Your task to perform on an android device: toggle sleep mode Image 0: 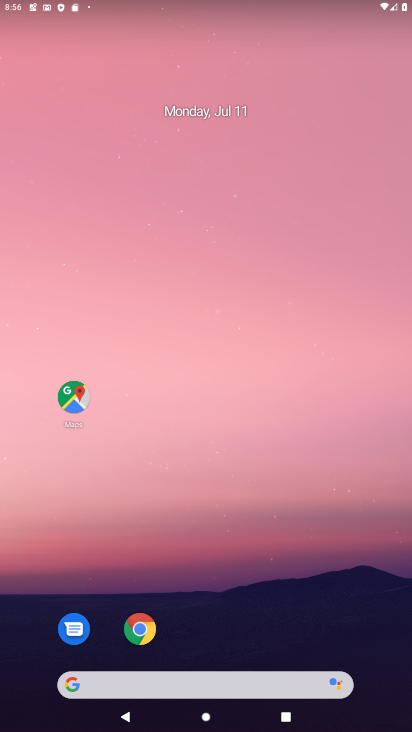
Step 0: drag from (351, 3) to (324, 596)
Your task to perform on an android device: toggle sleep mode Image 1: 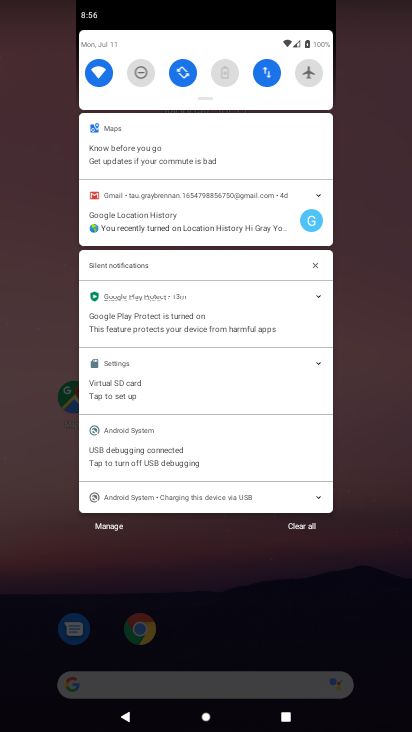
Step 1: drag from (278, 98) to (310, 556)
Your task to perform on an android device: toggle sleep mode Image 2: 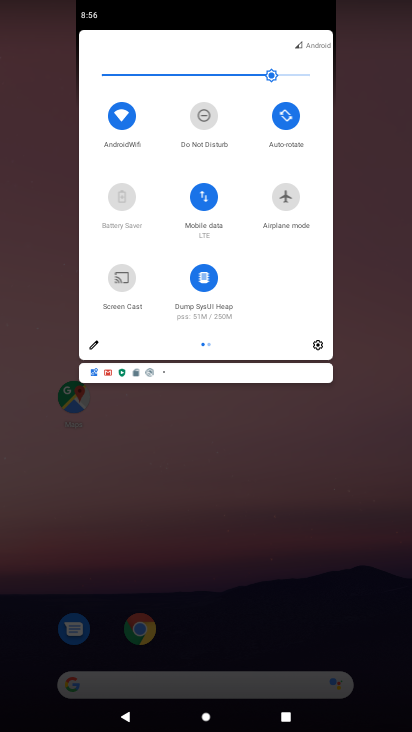
Step 2: click (87, 348)
Your task to perform on an android device: toggle sleep mode Image 3: 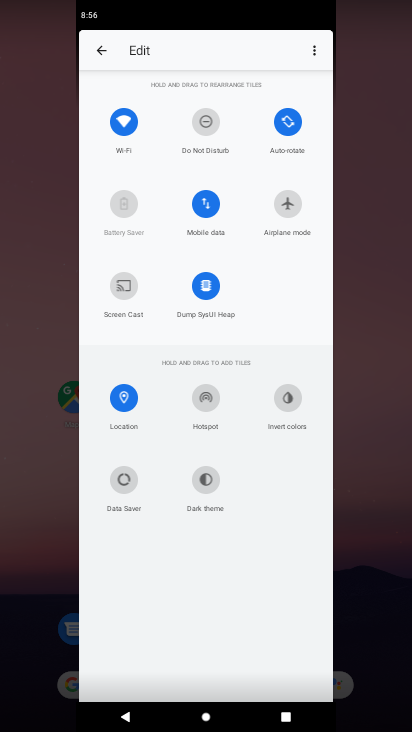
Step 3: task complete